Your task to perform on an android device: Open wifi settings Image 0: 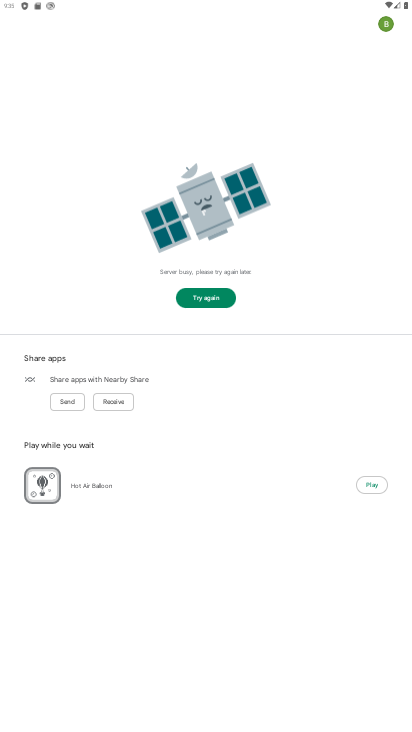
Step 0: press home button
Your task to perform on an android device: Open wifi settings Image 1: 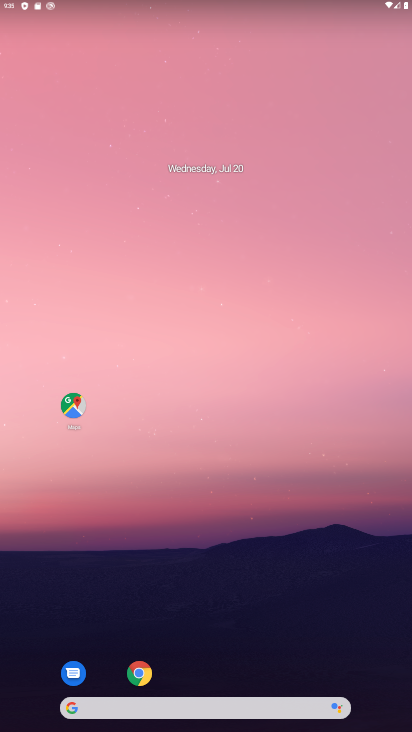
Step 1: drag from (299, 661) to (295, 295)
Your task to perform on an android device: Open wifi settings Image 2: 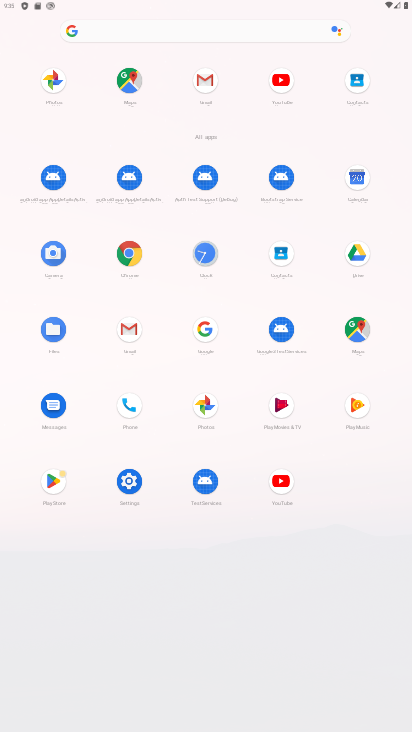
Step 2: click (130, 486)
Your task to perform on an android device: Open wifi settings Image 3: 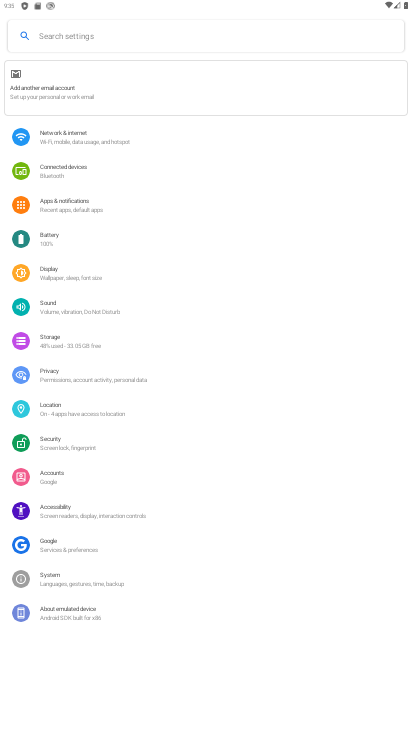
Step 3: click (139, 138)
Your task to perform on an android device: Open wifi settings Image 4: 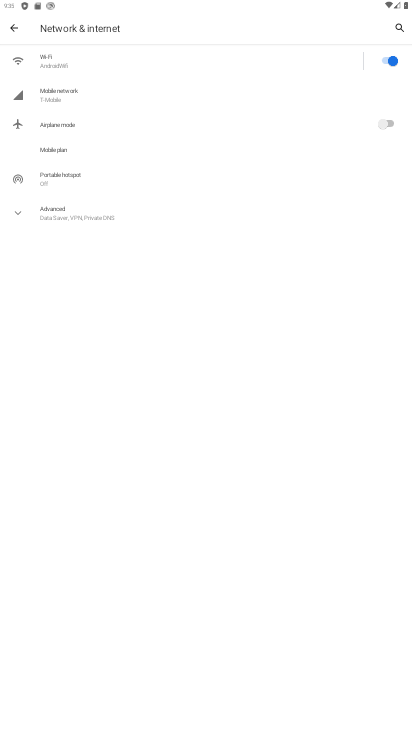
Step 4: click (144, 54)
Your task to perform on an android device: Open wifi settings Image 5: 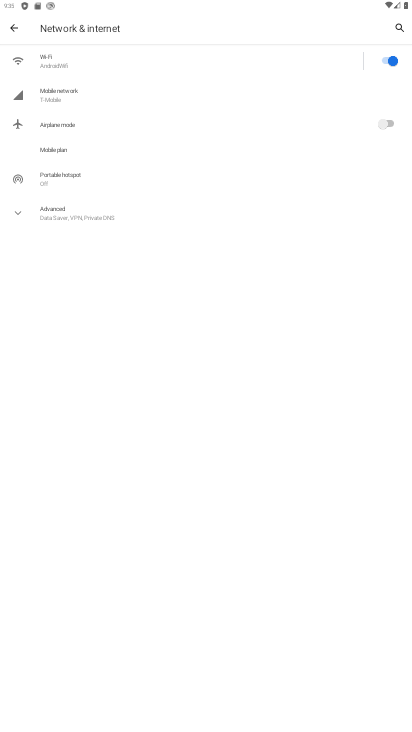
Step 5: click (55, 60)
Your task to perform on an android device: Open wifi settings Image 6: 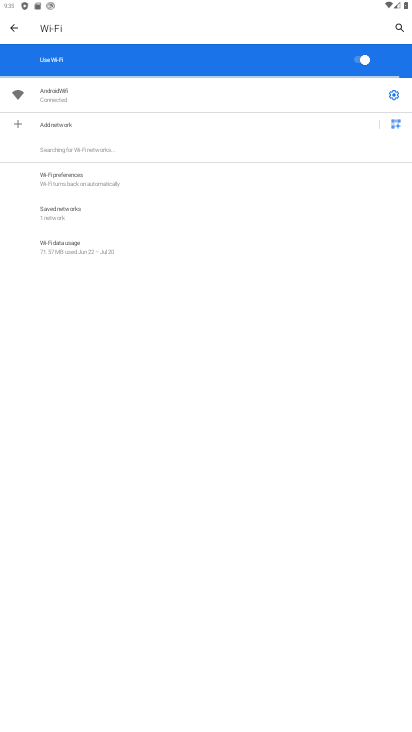
Step 6: task complete